Your task to perform on an android device: toggle wifi Image 0: 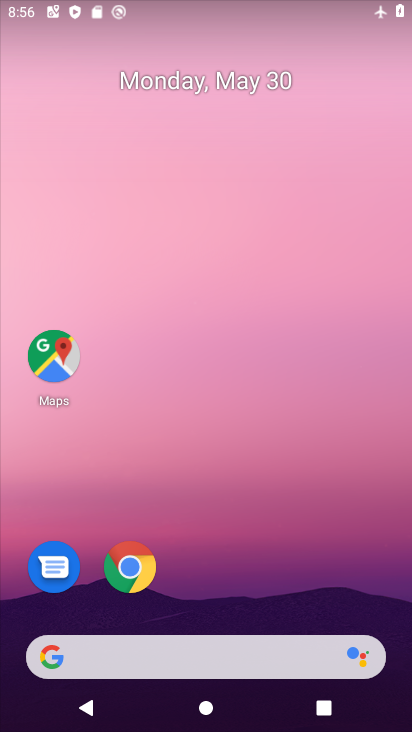
Step 0: drag from (230, 599) to (240, 146)
Your task to perform on an android device: toggle wifi Image 1: 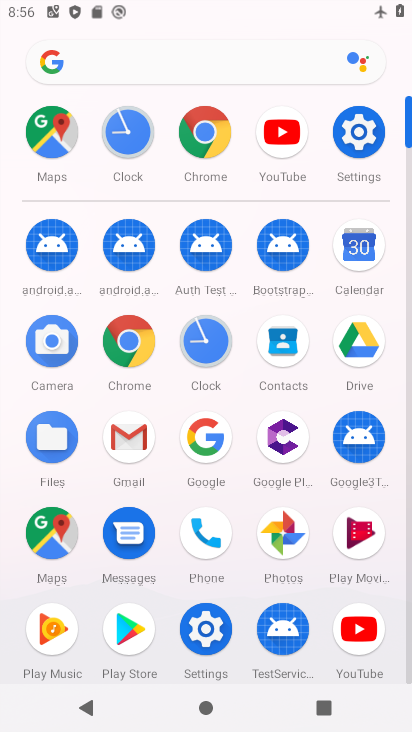
Step 1: click (368, 147)
Your task to perform on an android device: toggle wifi Image 2: 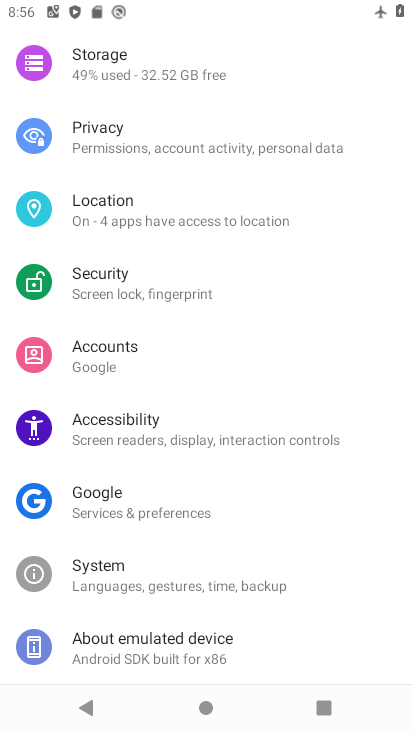
Step 2: drag from (217, 119) to (161, 630)
Your task to perform on an android device: toggle wifi Image 3: 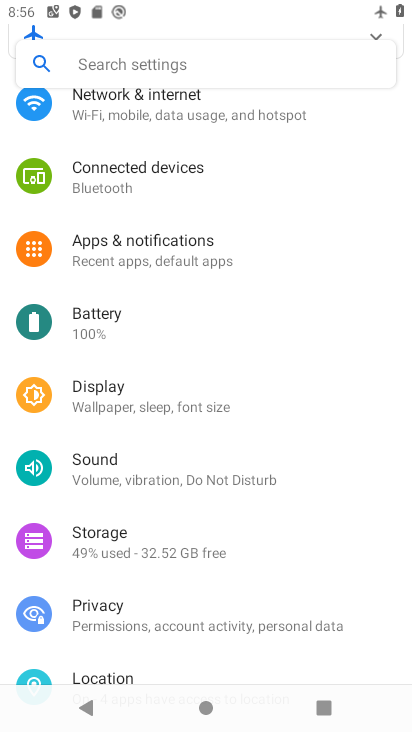
Step 3: drag from (116, 142) to (129, 361)
Your task to perform on an android device: toggle wifi Image 4: 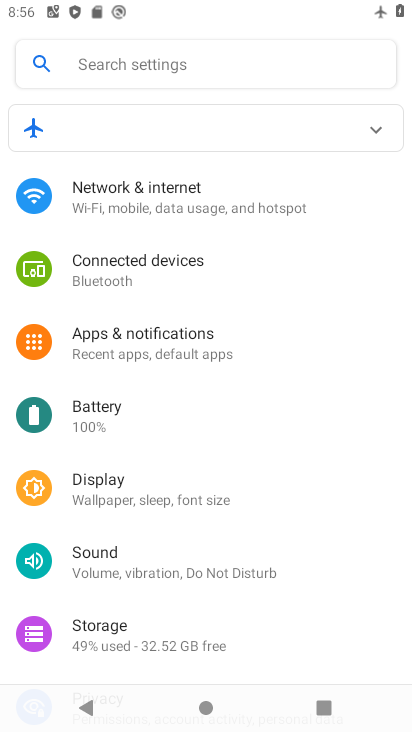
Step 4: click (119, 202)
Your task to perform on an android device: toggle wifi Image 5: 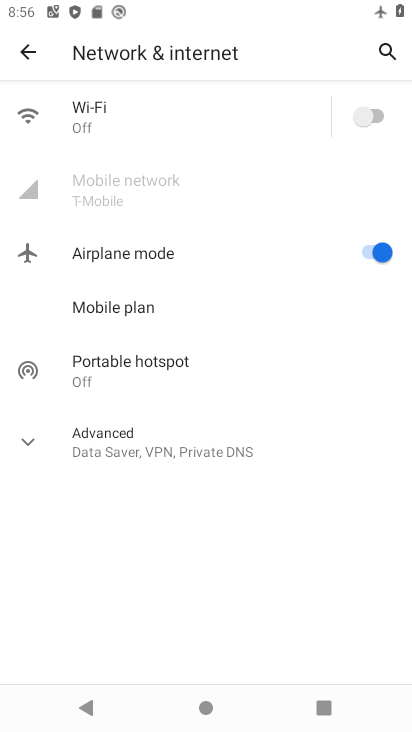
Step 5: click (374, 100)
Your task to perform on an android device: toggle wifi Image 6: 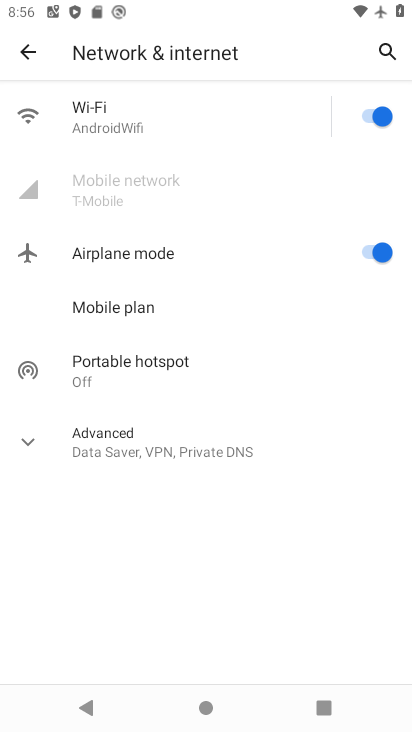
Step 6: task complete